Your task to perform on an android device: open a new tab in the chrome app Image 0: 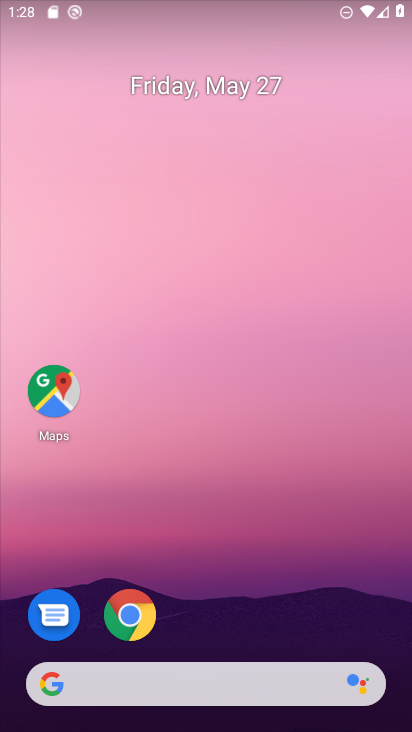
Step 0: drag from (279, 617) to (241, 233)
Your task to perform on an android device: open a new tab in the chrome app Image 1: 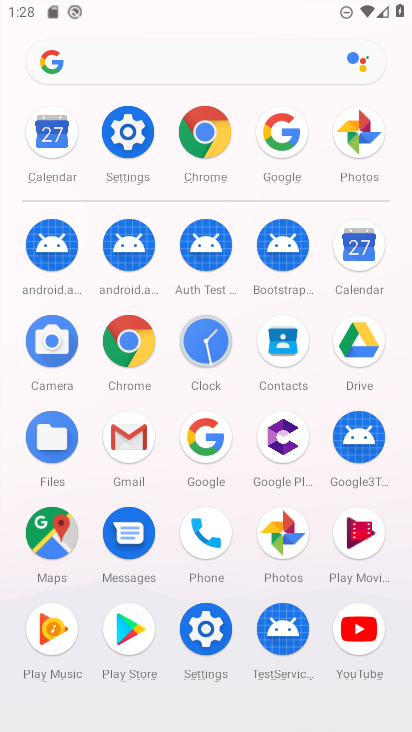
Step 1: click (133, 368)
Your task to perform on an android device: open a new tab in the chrome app Image 2: 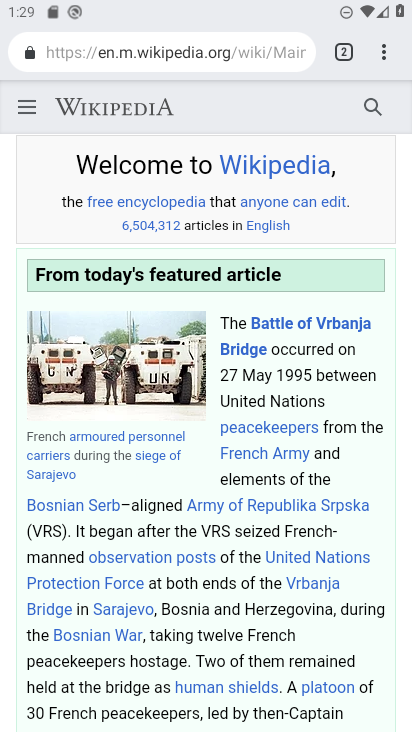
Step 2: click (349, 62)
Your task to perform on an android device: open a new tab in the chrome app Image 3: 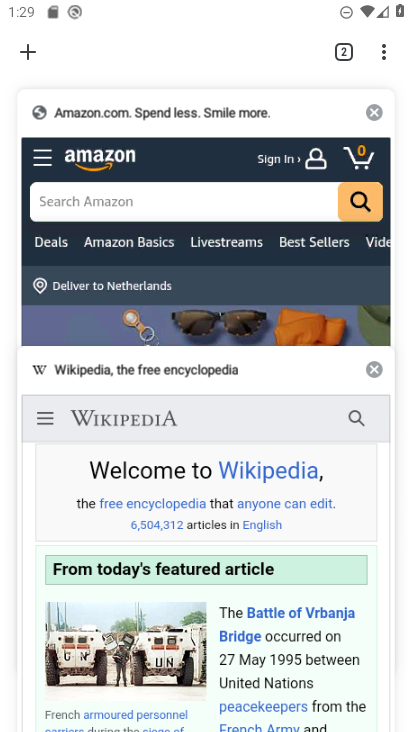
Step 3: click (23, 56)
Your task to perform on an android device: open a new tab in the chrome app Image 4: 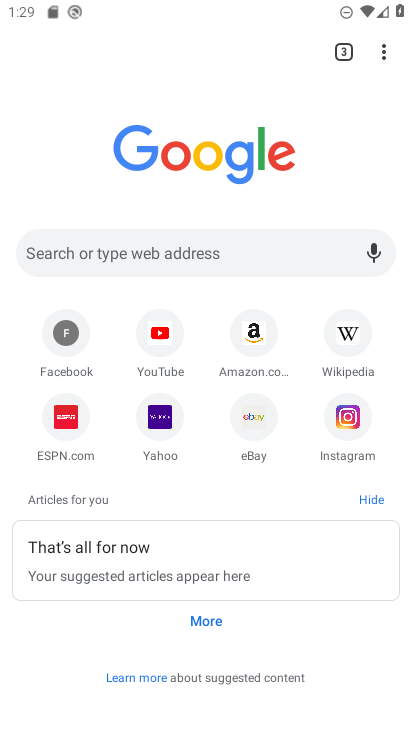
Step 4: task complete